Your task to perform on an android device: all mails in gmail Image 0: 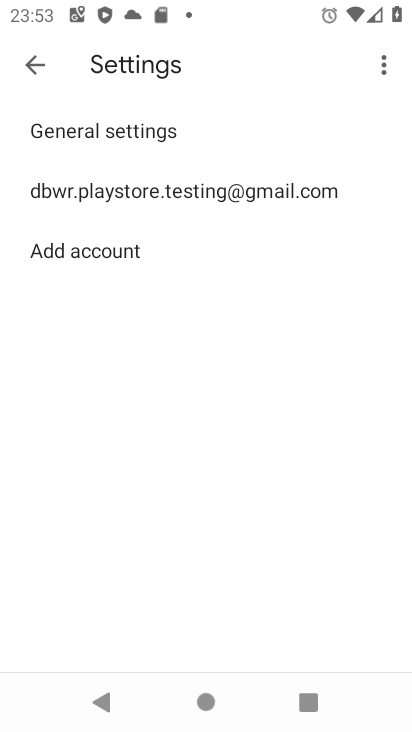
Step 0: press home button
Your task to perform on an android device: all mails in gmail Image 1: 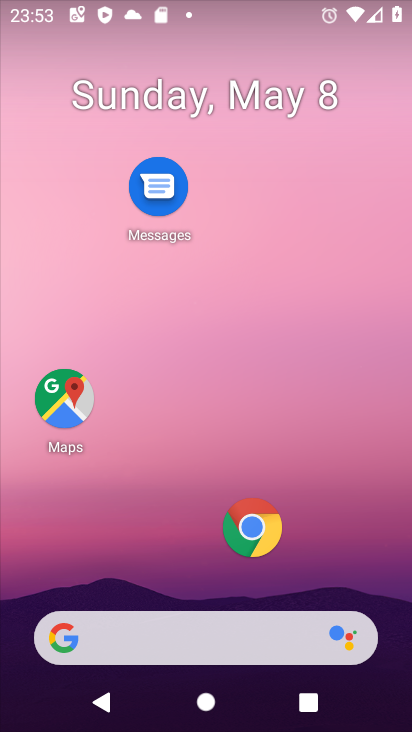
Step 1: drag from (183, 559) to (207, 115)
Your task to perform on an android device: all mails in gmail Image 2: 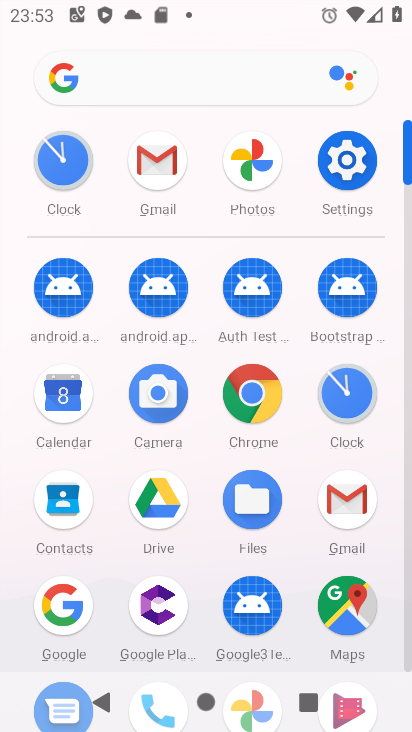
Step 2: click (157, 156)
Your task to perform on an android device: all mails in gmail Image 3: 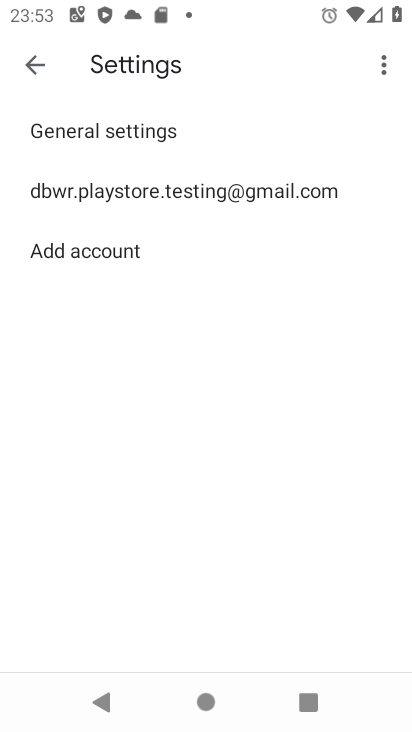
Step 3: click (154, 193)
Your task to perform on an android device: all mails in gmail Image 4: 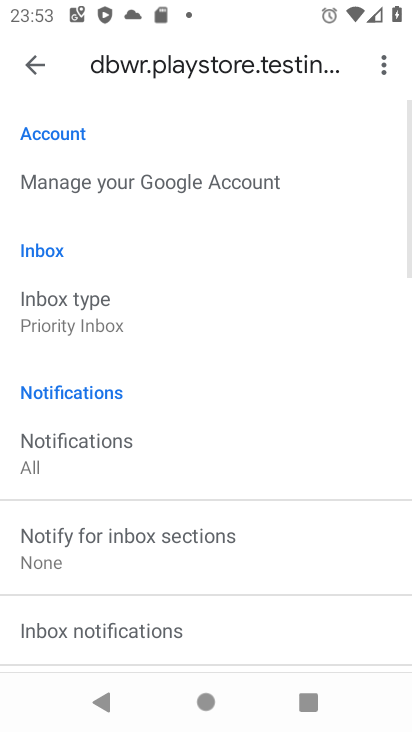
Step 4: drag from (211, 304) to (277, 629)
Your task to perform on an android device: all mails in gmail Image 5: 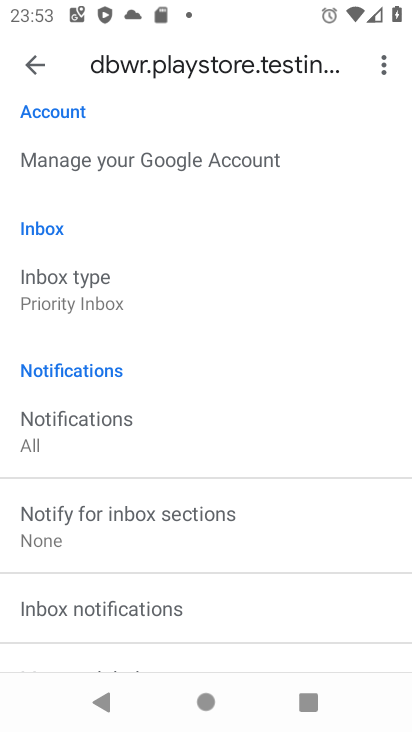
Step 5: press back button
Your task to perform on an android device: all mails in gmail Image 6: 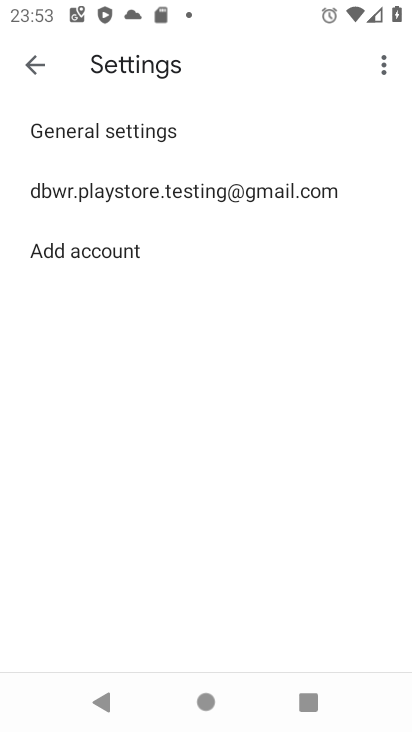
Step 6: press back button
Your task to perform on an android device: all mails in gmail Image 7: 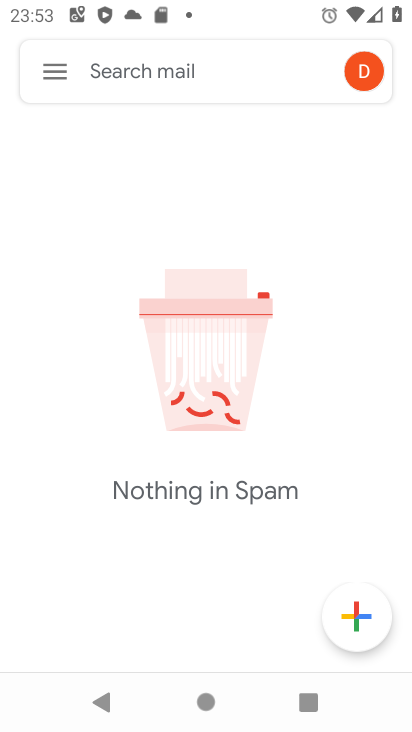
Step 7: click (51, 67)
Your task to perform on an android device: all mails in gmail Image 8: 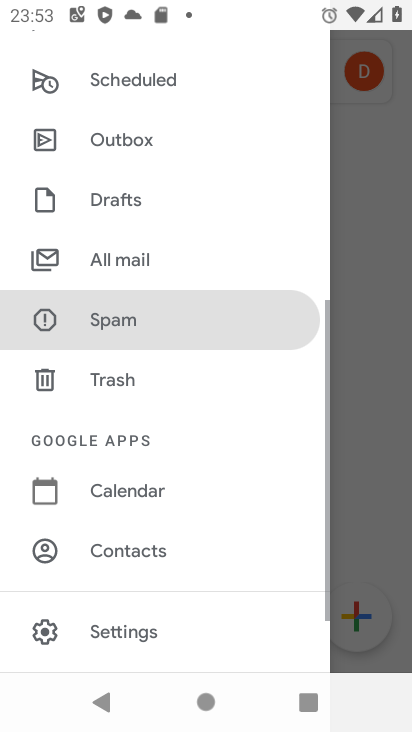
Step 8: drag from (148, 554) to (183, 401)
Your task to perform on an android device: all mails in gmail Image 9: 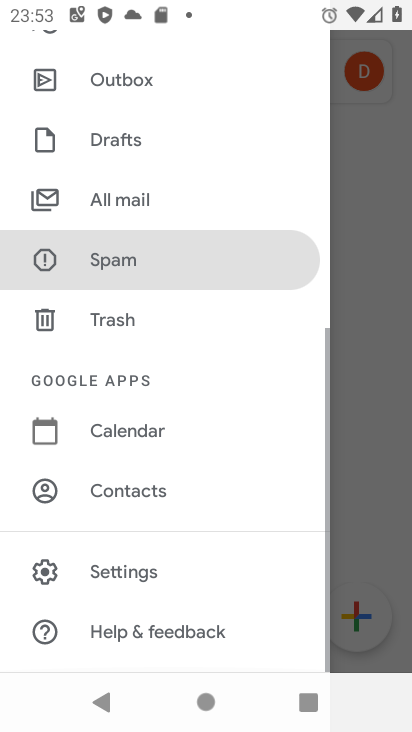
Step 9: click (114, 201)
Your task to perform on an android device: all mails in gmail Image 10: 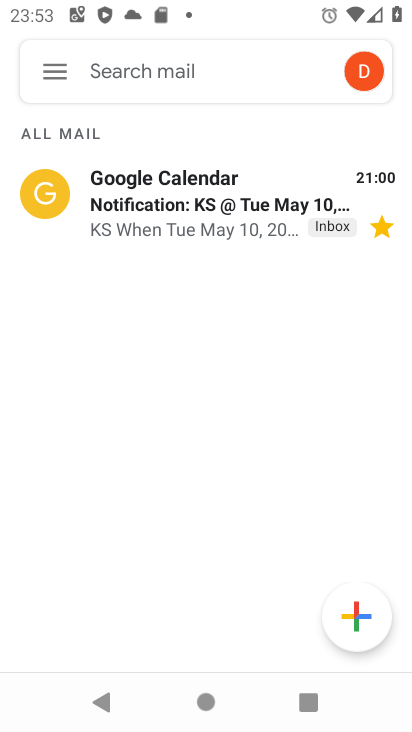
Step 10: task complete